Your task to perform on an android device: remove spam from my inbox in the gmail app Image 0: 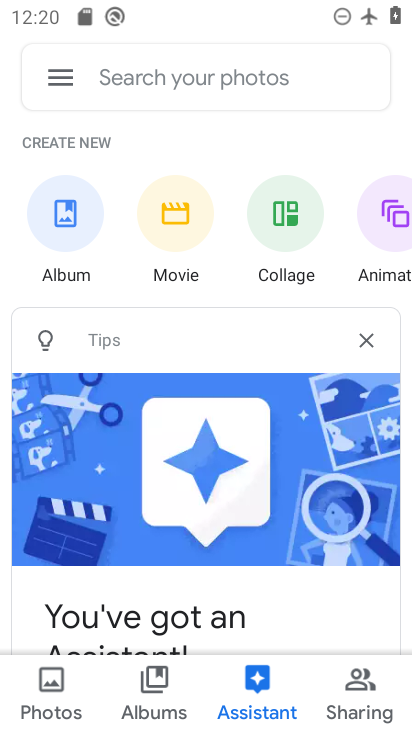
Step 0: press home button
Your task to perform on an android device: remove spam from my inbox in the gmail app Image 1: 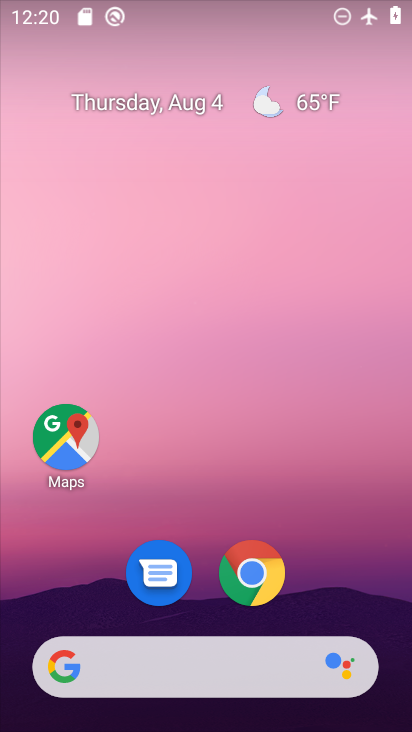
Step 1: drag from (348, 517) to (308, 51)
Your task to perform on an android device: remove spam from my inbox in the gmail app Image 2: 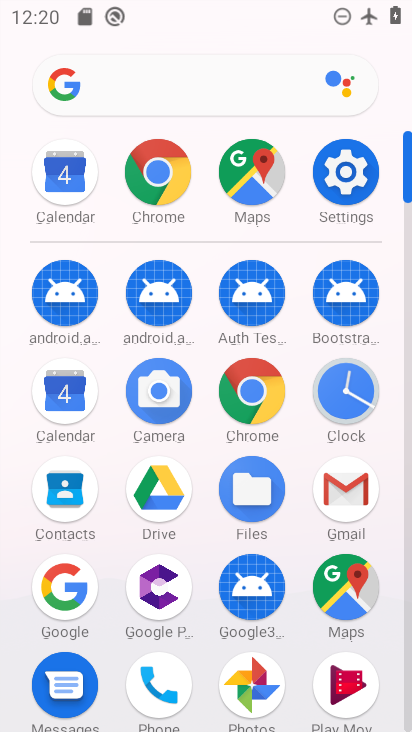
Step 2: click (356, 474)
Your task to perform on an android device: remove spam from my inbox in the gmail app Image 3: 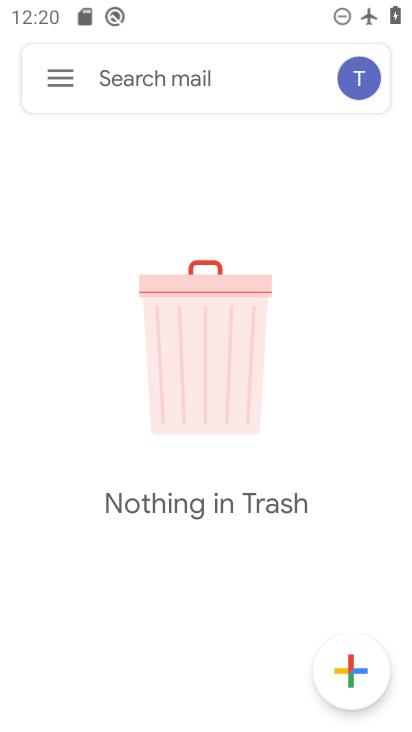
Step 3: click (62, 68)
Your task to perform on an android device: remove spam from my inbox in the gmail app Image 4: 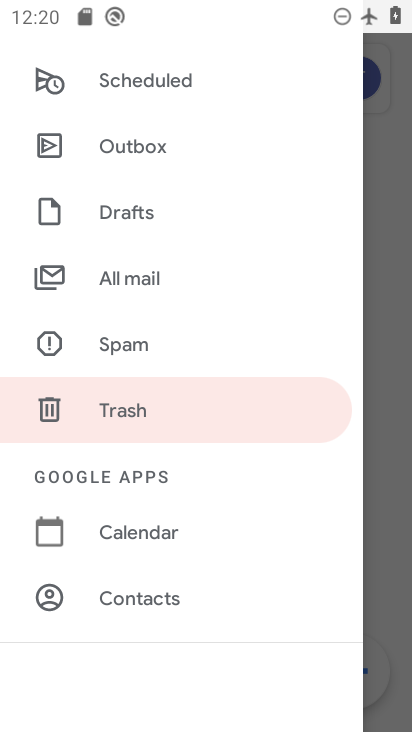
Step 4: drag from (136, 157) to (162, 606)
Your task to perform on an android device: remove spam from my inbox in the gmail app Image 5: 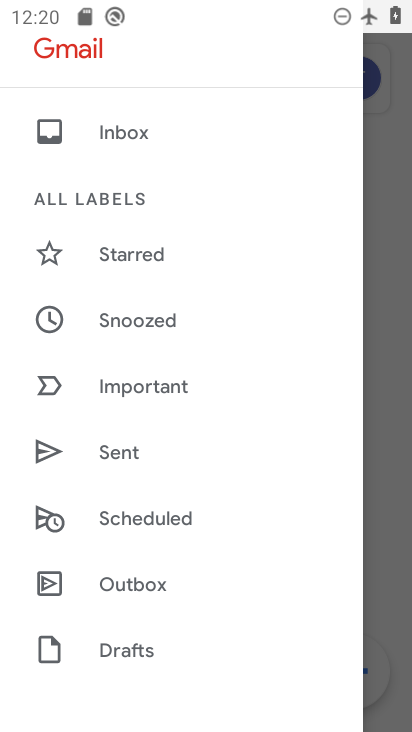
Step 5: click (138, 143)
Your task to perform on an android device: remove spam from my inbox in the gmail app Image 6: 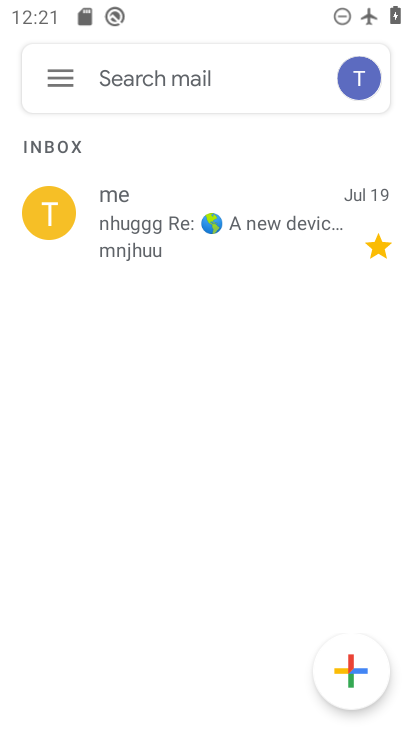
Step 6: task complete